Your task to perform on an android device: Open the calendar and show me this week's events Image 0: 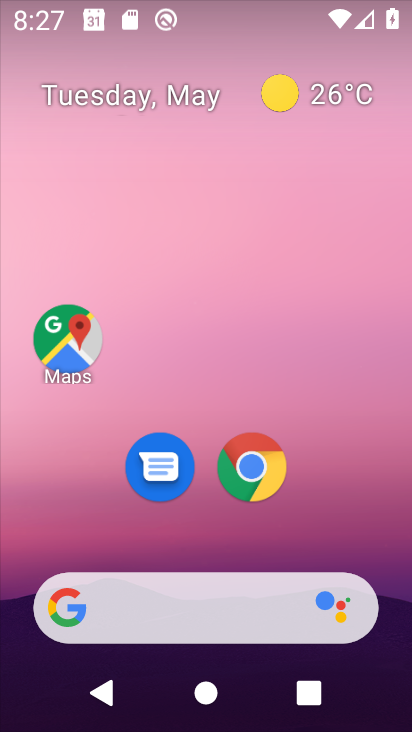
Step 0: drag from (396, 674) to (371, 334)
Your task to perform on an android device: Open the calendar and show me this week's events Image 1: 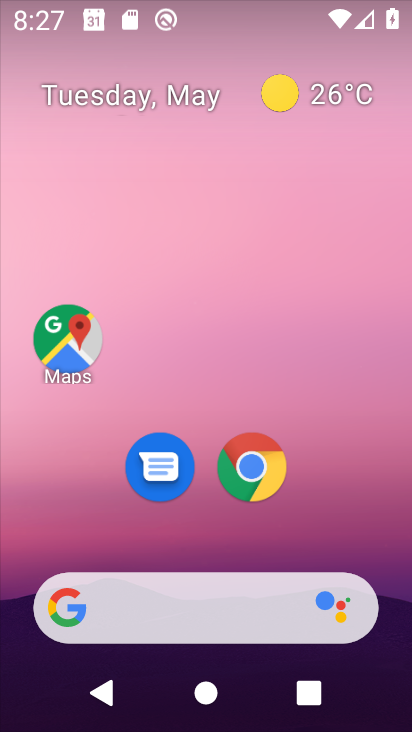
Step 1: drag from (400, 681) to (389, 123)
Your task to perform on an android device: Open the calendar and show me this week's events Image 2: 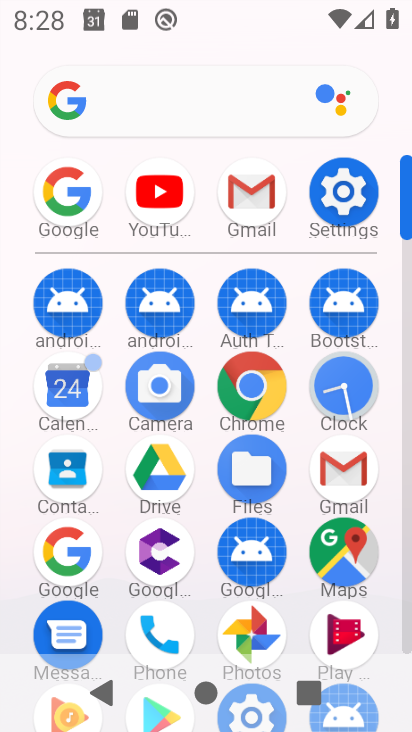
Step 2: click (63, 410)
Your task to perform on an android device: Open the calendar and show me this week's events Image 3: 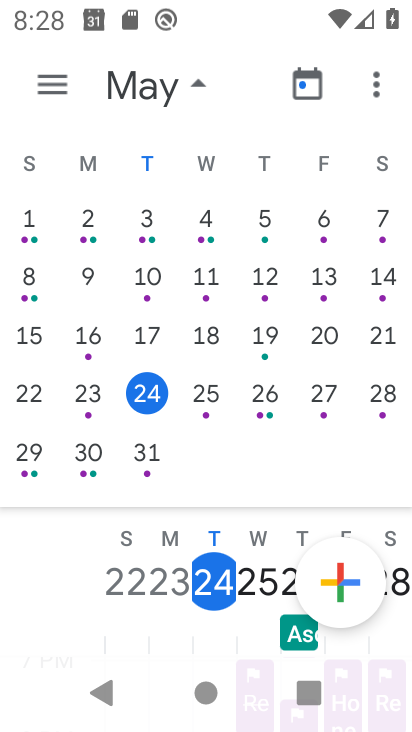
Step 3: click (211, 402)
Your task to perform on an android device: Open the calendar and show me this week's events Image 4: 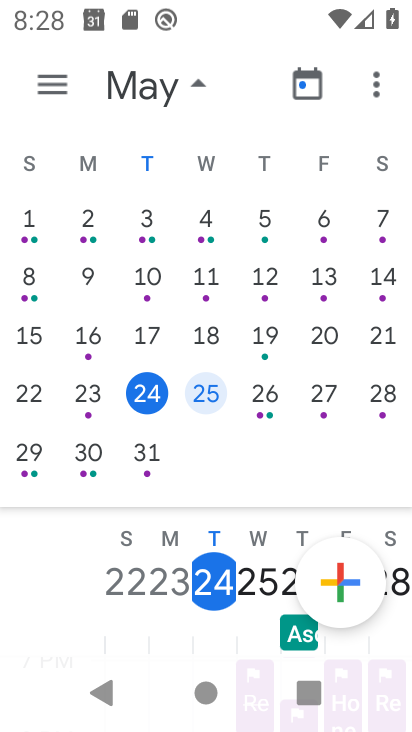
Step 4: click (41, 87)
Your task to perform on an android device: Open the calendar and show me this week's events Image 5: 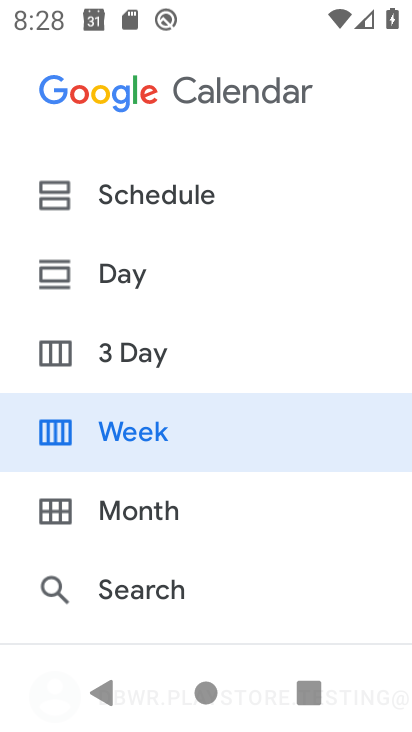
Step 5: click (145, 421)
Your task to perform on an android device: Open the calendar and show me this week's events Image 6: 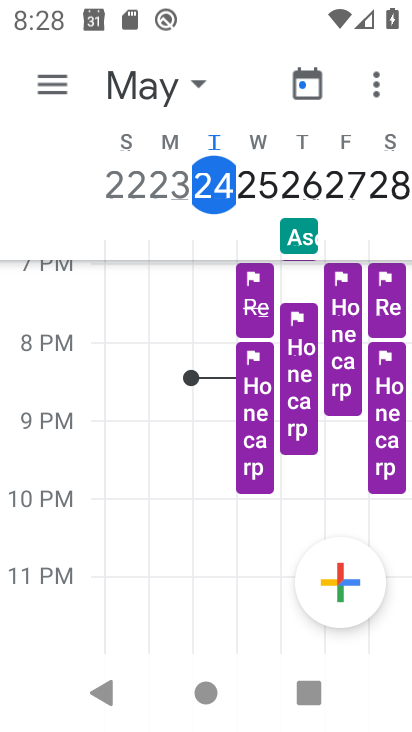
Step 6: task complete